Your task to perform on an android device: Go to settings Image 0: 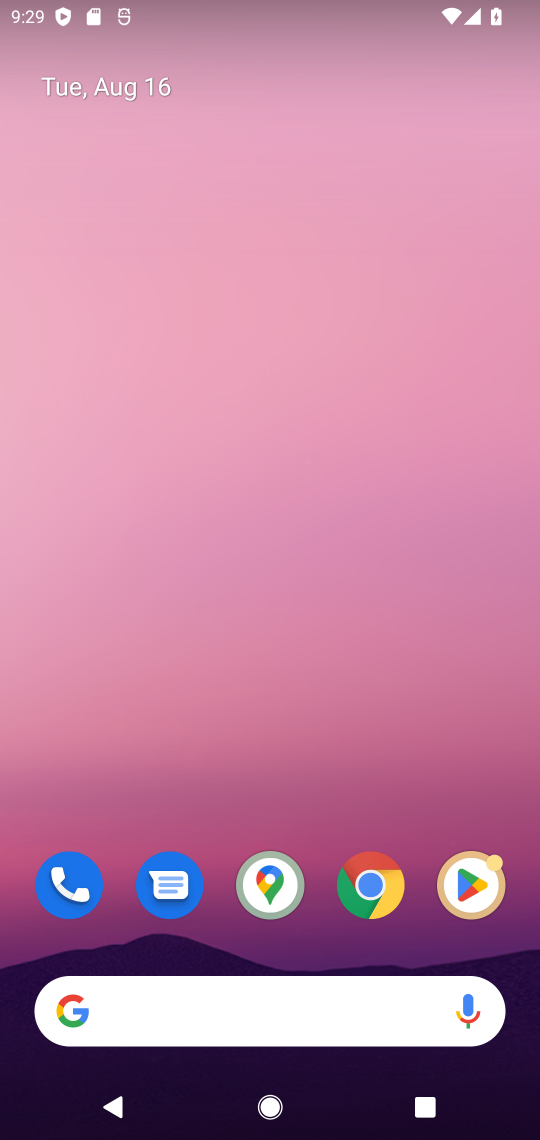
Step 0: drag from (265, 896) to (255, 85)
Your task to perform on an android device: Go to settings Image 1: 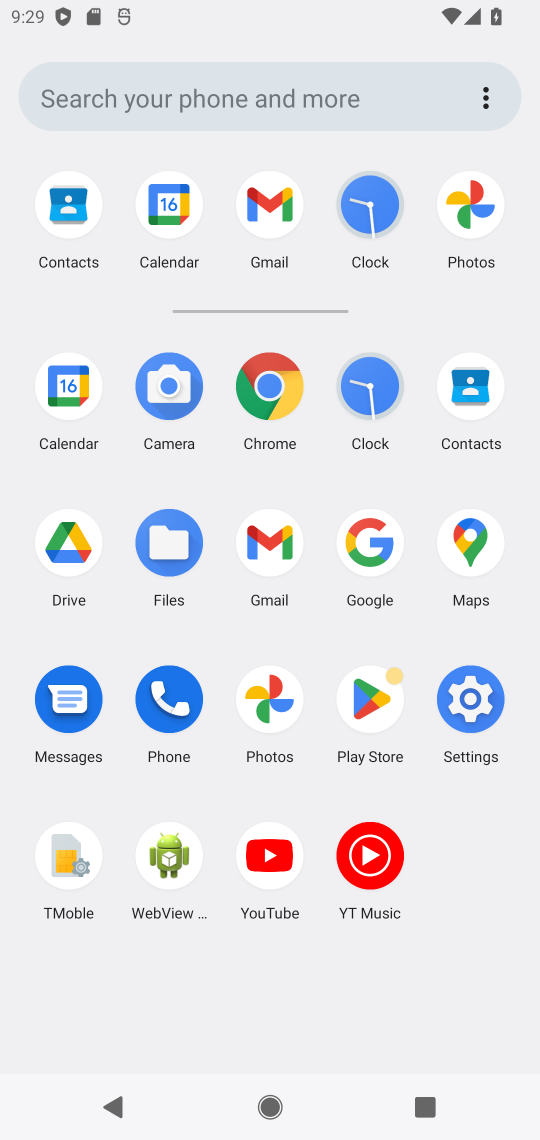
Step 1: click (466, 701)
Your task to perform on an android device: Go to settings Image 2: 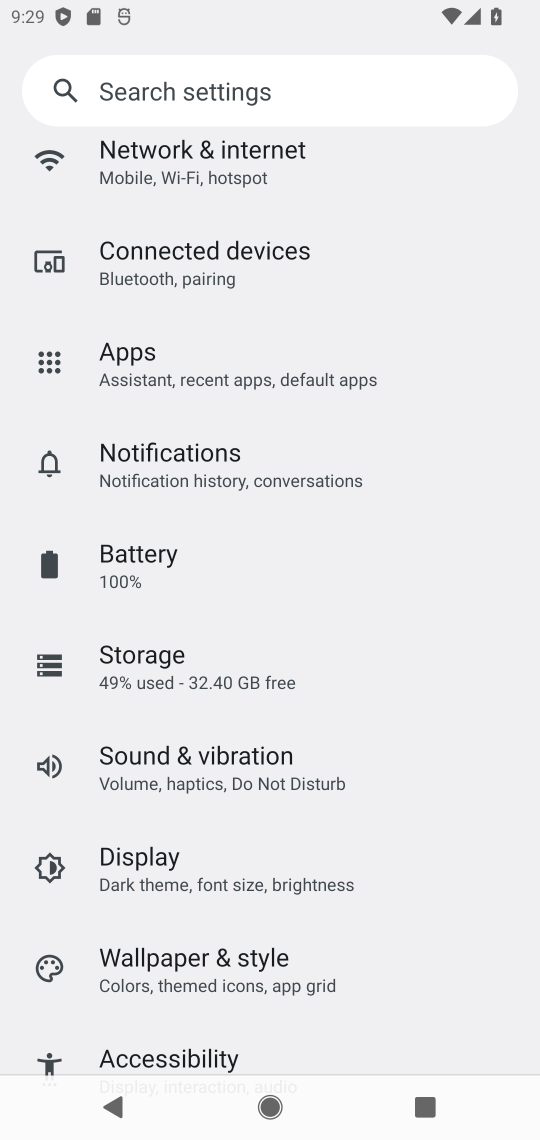
Step 2: task complete